Your task to perform on an android device: Go to Google maps Image 0: 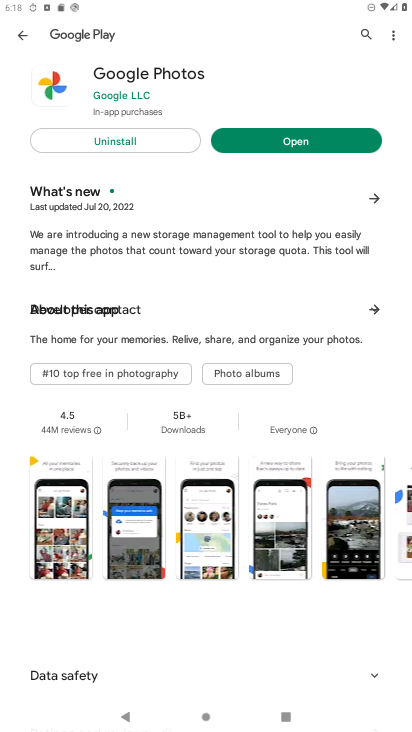
Step 0: press home button
Your task to perform on an android device: Go to Google maps Image 1: 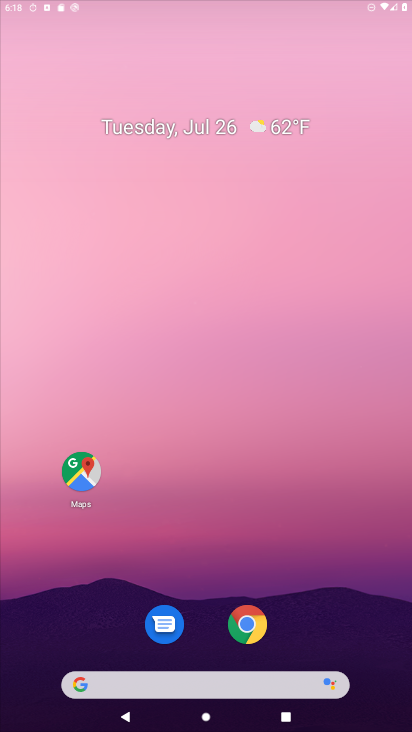
Step 1: drag from (180, 684) to (262, 26)
Your task to perform on an android device: Go to Google maps Image 2: 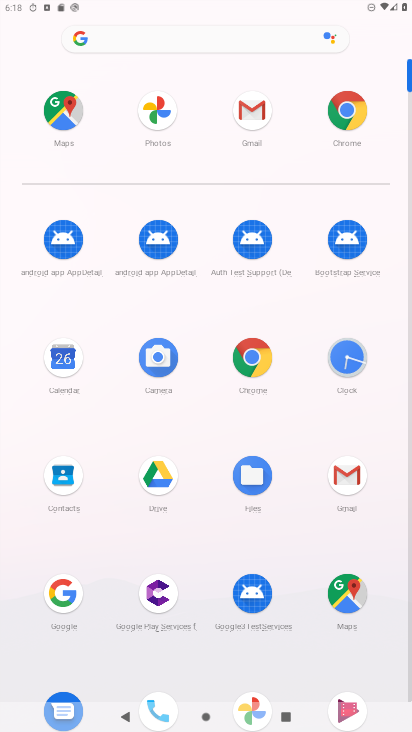
Step 2: click (359, 600)
Your task to perform on an android device: Go to Google maps Image 3: 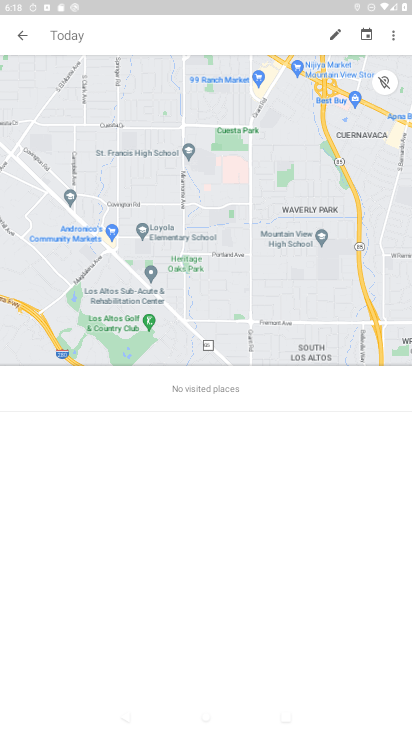
Step 3: task complete